Your task to perform on an android device: turn vacation reply on in the gmail app Image 0: 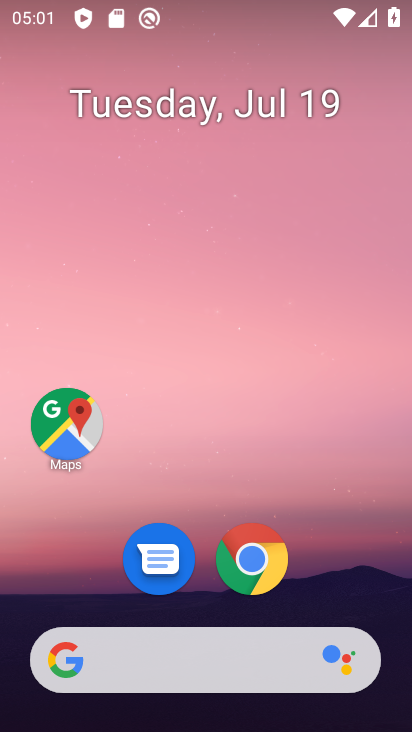
Step 0: drag from (115, 573) to (144, 20)
Your task to perform on an android device: turn vacation reply on in the gmail app Image 1: 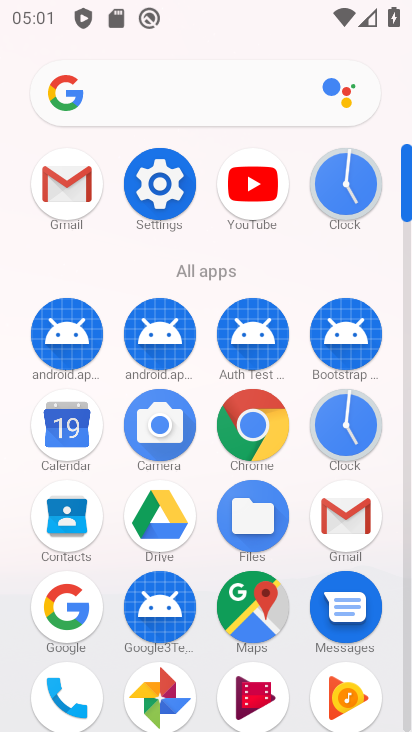
Step 1: click (80, 179)
Your task to perform on an android device: turn vacation reply on in the gmail app Image 2: 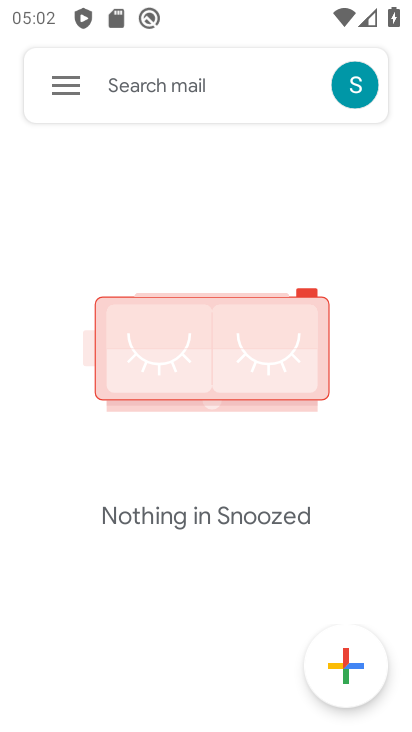
Step 2: click (65, 75)
Your task to perform on an android device: turn vacation reply on in the gmail app Image 3: 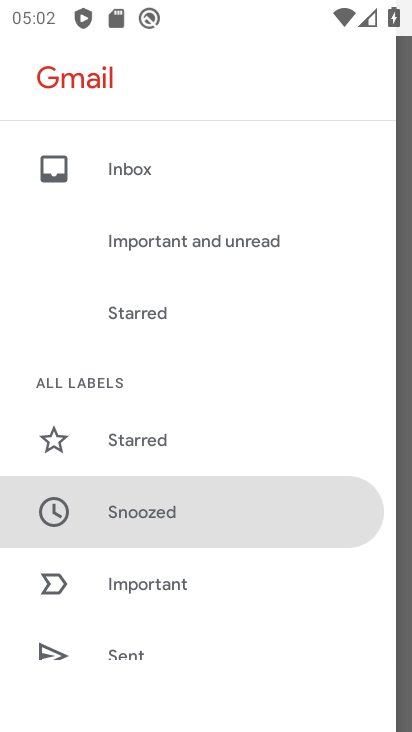
Step 3: drag from (137, 649) to (237, 95)
Your task to perform on an android device: turn vacation reply on in the gmail app Image 4: 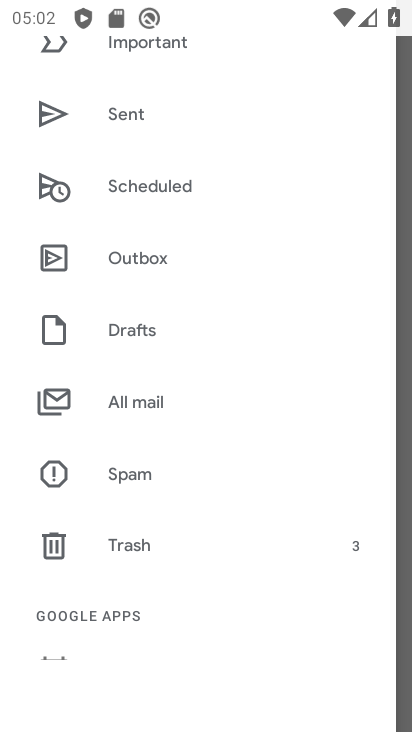
Step 4: drag from (195, 597) to (206, 92)
Your task to perform on an android device: turn vacation reply on in the gmail app Image 5: 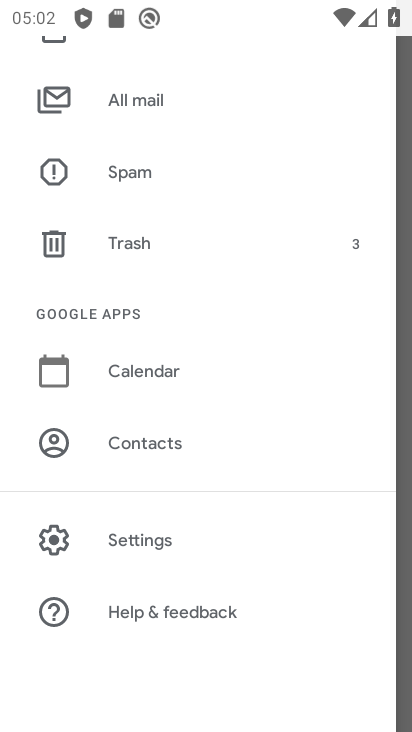
Step 5: click (134, 526)
Your task to perform on an android device: turn vacation reply on in the gmail app Image 6: 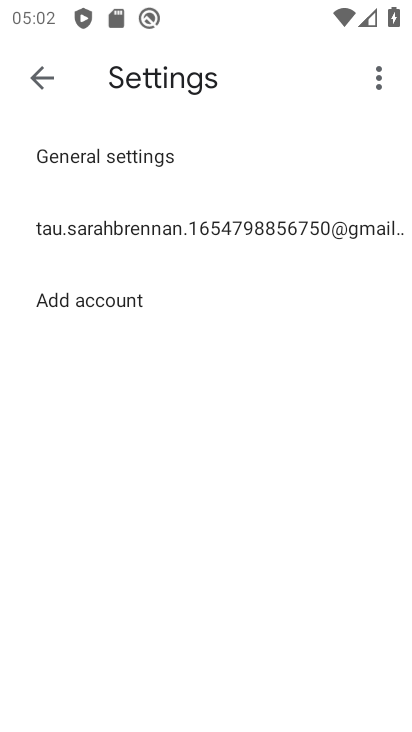
Step 6: click (175, 219)
Your task to perform on an android device: turn vacation reply on in the gmail app Image 7: 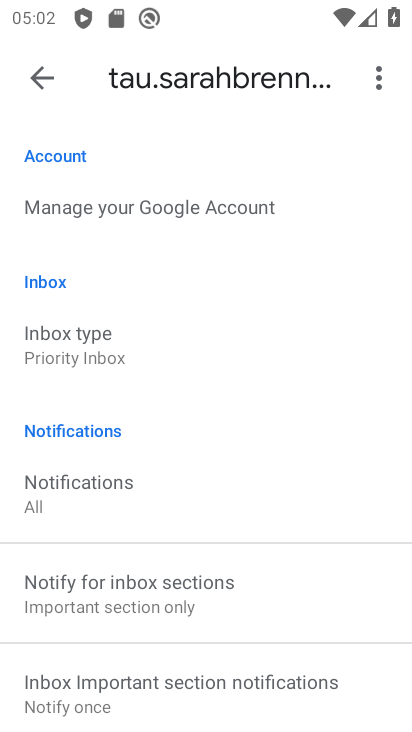
Step 7: drag from (109, 611) to (159, 174)
Your task to perform on an android device: turn vacation reply on in the gmail app Image 8: 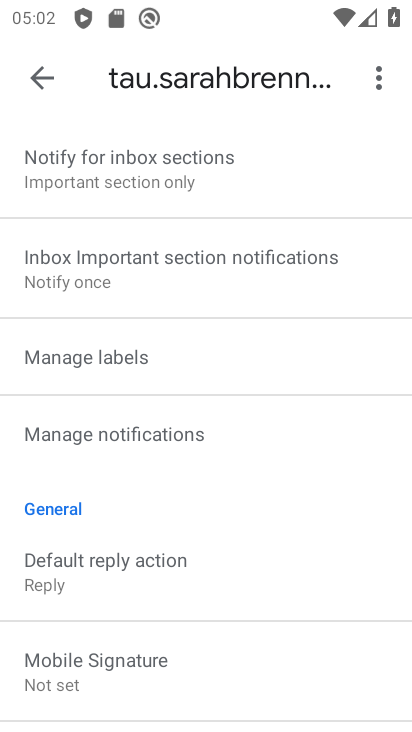
Step 8: drag from (138, 665) to (198, 118)
Your task to perform on an android device: turn vacation reply on in the gmail app Image 9: 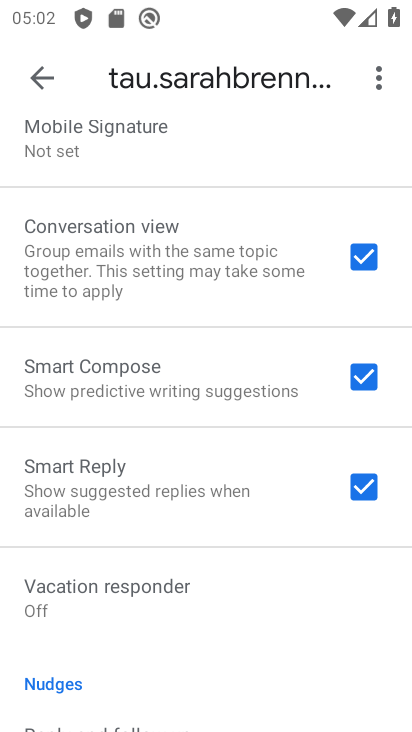
Step 9: click (125, 594)
Your task to perform on an android device: turn vacation reply on in the gmail app Image 10: 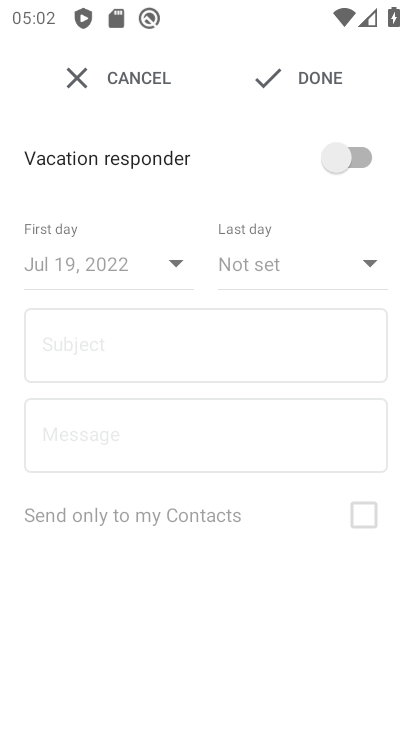
Step 10: click (343, 151)
Your task to perform on an android device: turn vacation reply on in the gmail app Image 11: 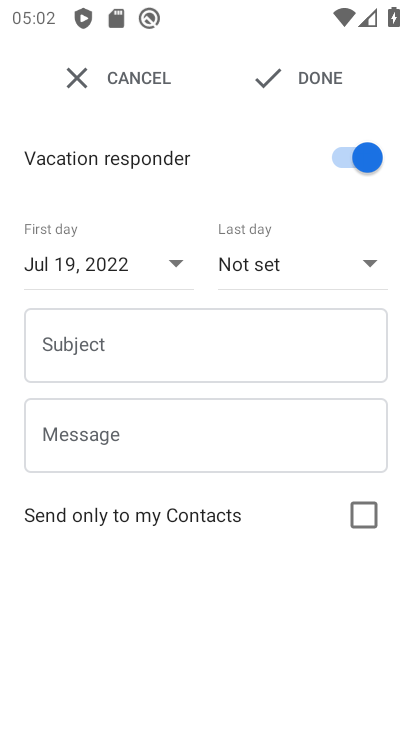
Step 11: task complete